Your task to perform on an android device: Go to battery settings Image 0: 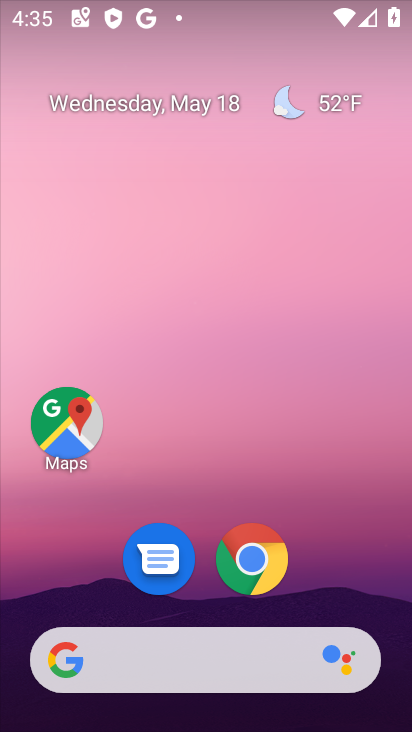
Step 0: drag from (141, 626) to (246, 0)
Your task to perform on an android device: Go to battery settings Image 1: 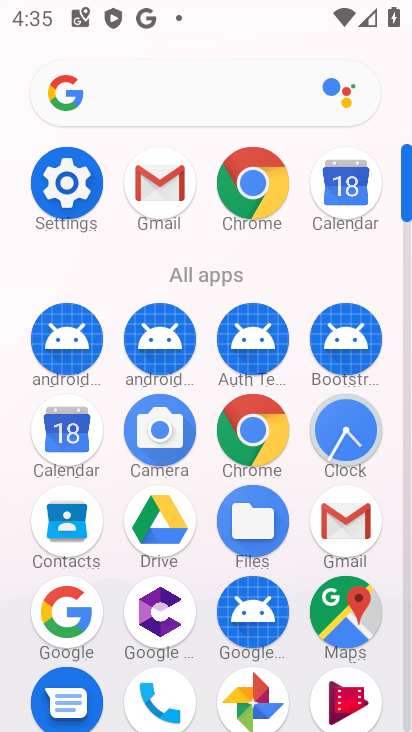
Step 1: click (65, 169)
Your task to perform on an android device: Go to battery settings Image 2: 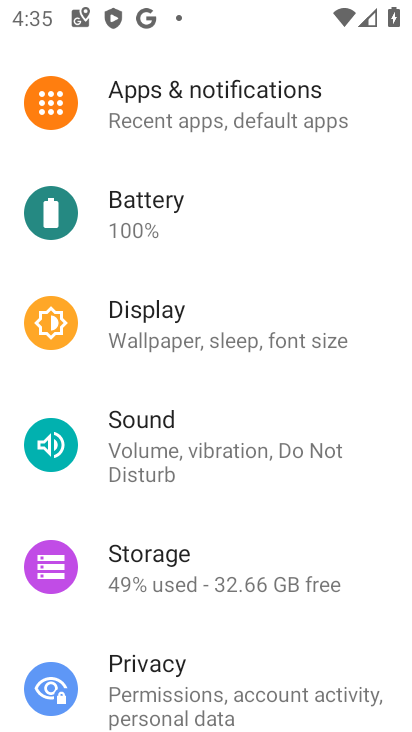
Step 2: click (172, 214)
Your task to perform on an android device: Go to battery settings Image 3: 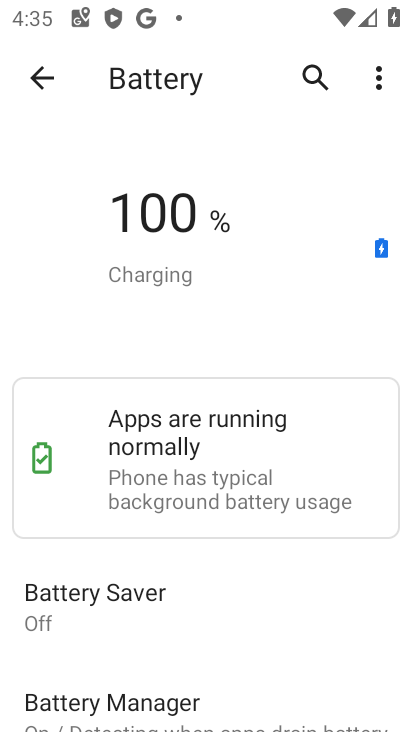
Step 3: task complete